Your task to perform on an android device: create a new album in the google photos Image 0: 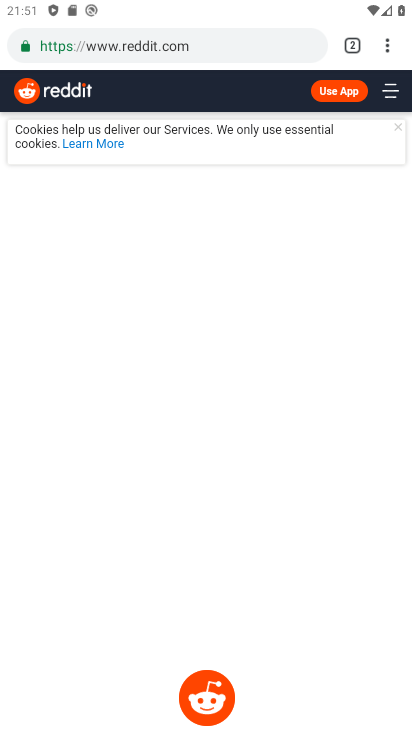
Step 0: press home button
Your task to perform on an android device: create a new album in the google photos Image 1: 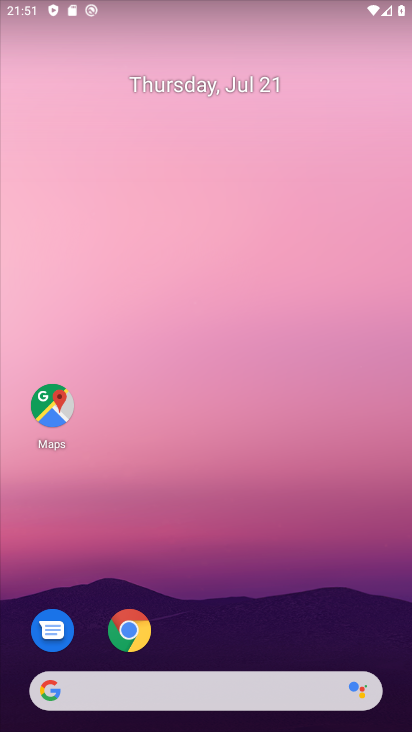
Step 1: drag from (243, 659) to (237, 168)
Your task to perform on an android device: create a new album in the google photos Image 2: 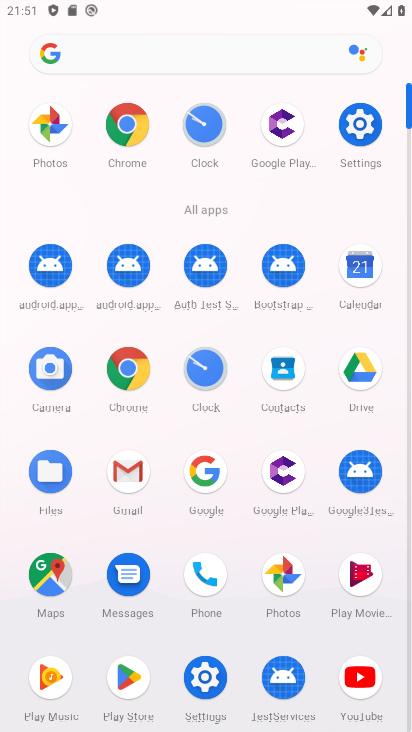
Step 2: click (294, 558)
Your task to perform on an android device: create a new album in the google photos Image 3: 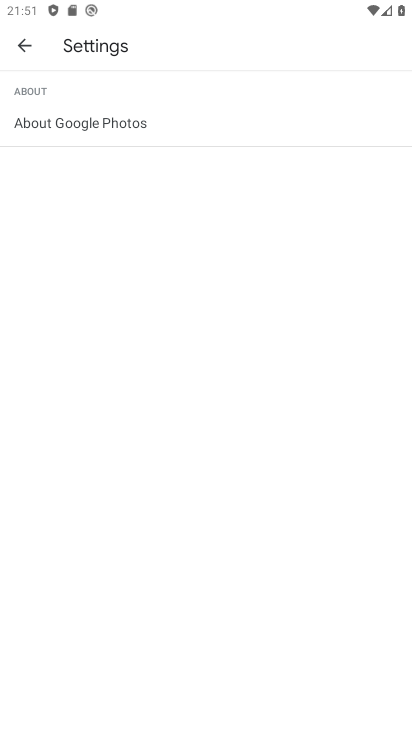
Step 3: click (23, 51)
Your task to perform on an android device: create a new album in the google photos Image 4: 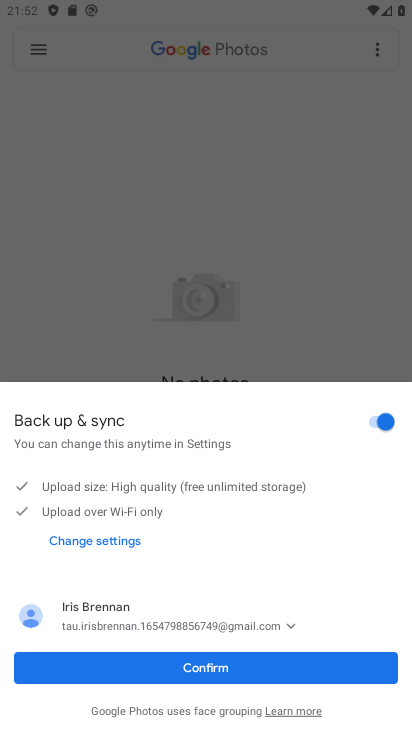
Step 4: click (190, 670)
Your task to perform on an android device: create a new album in the google photos Image 5: 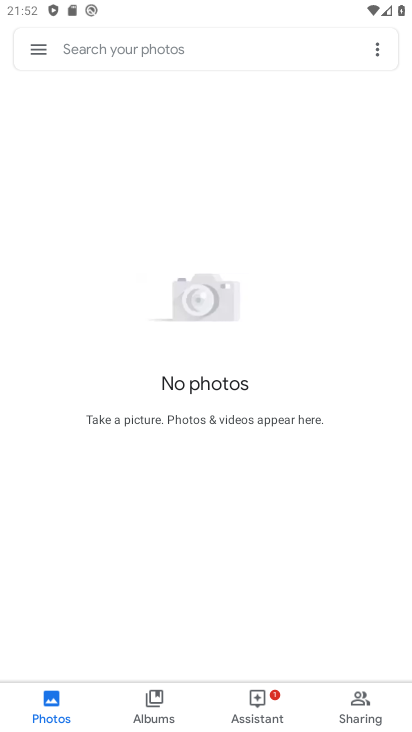
Step 5: click (146, 703)
Your task to perform on an android device: create a new album in the google photos Image 6: 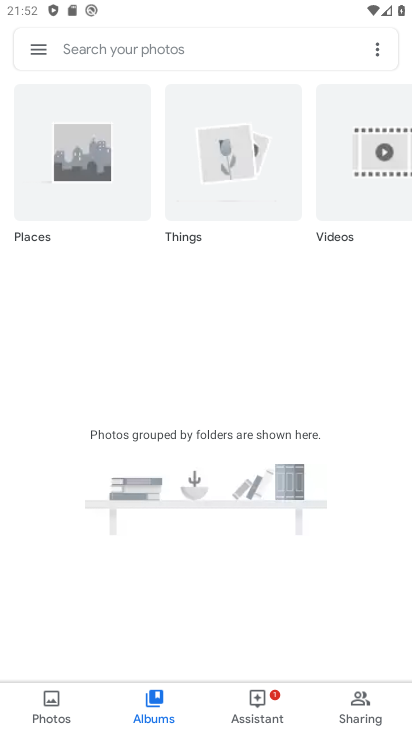
Step 6: task complete